Your task to perform on an android device: change the upload size in google photos Image 0: 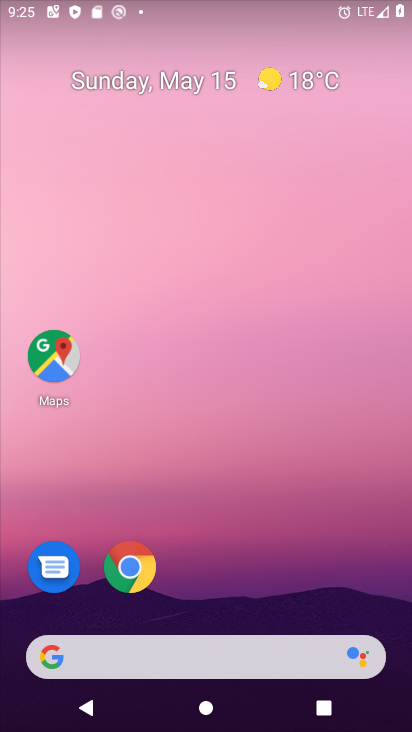
Step 0: drag from (249, 712) to (38, 65)
Your task to perform on an android device: change the upload size in google photos Image 1: 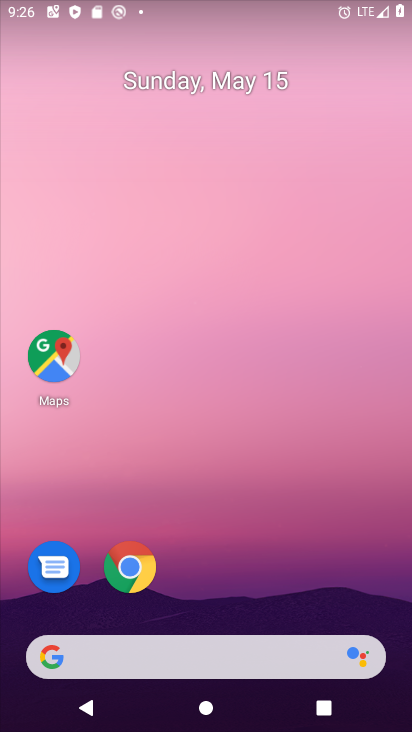
Step 1: drag from (259, 717) to (352, 10)
Your task to perform on an android device: change the upload size in google photos Image 2: 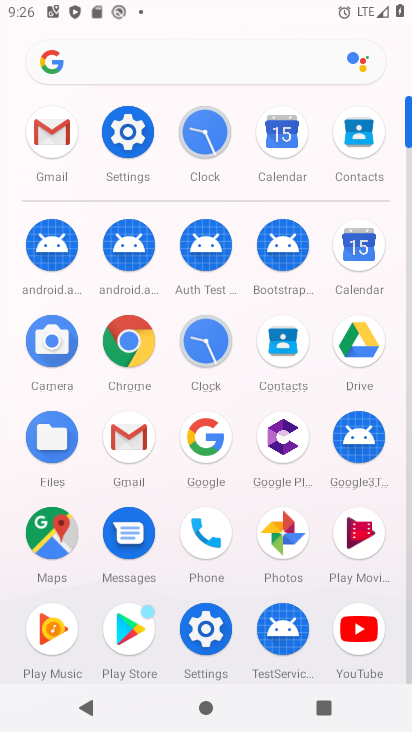
Step 2: click (267, 540)
Your task to perform on an android device: change the upload size in google photos Image 3: 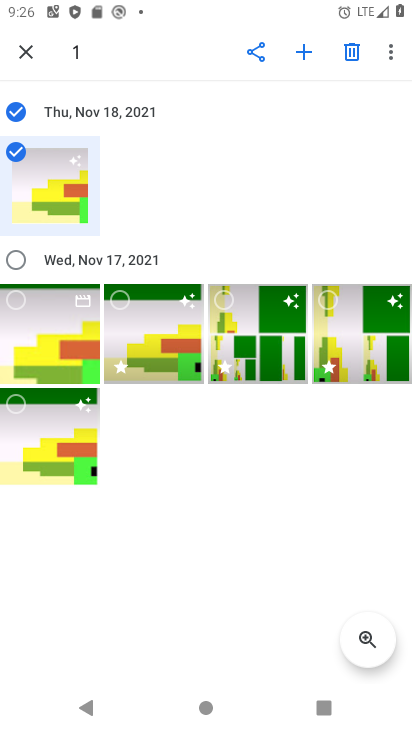
Step 3: click (31, 56)
Your task to perform on an android device: change the upload size in google photos Image 4: 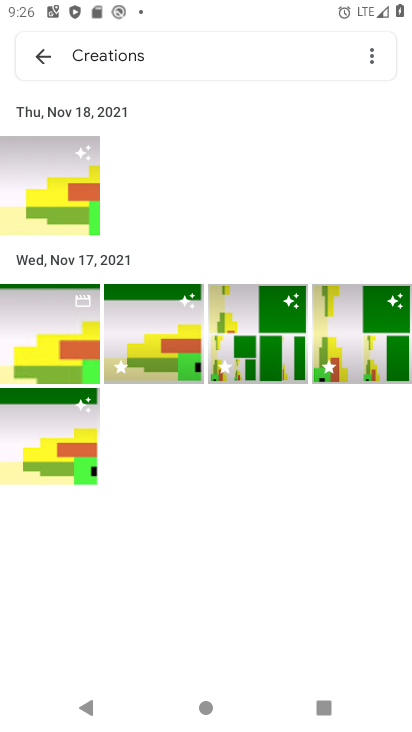
Step 4: click (31, 56)
Your task to perform on an android device: change the upload size in google photos Image 5: 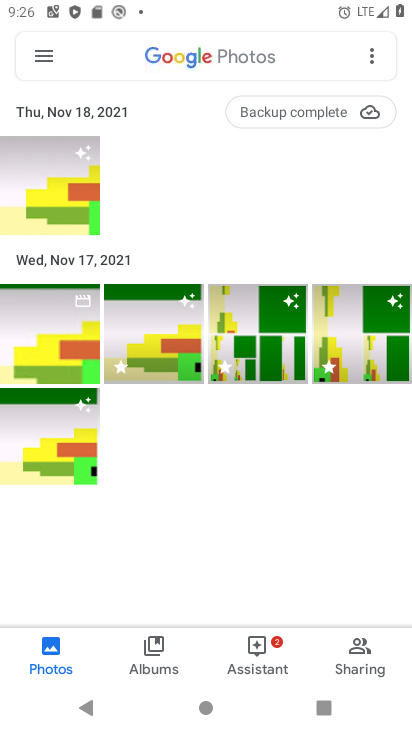
Step 5: click (39, 54)
Your task to perform on an android device: change the upload size in google photos Image 6: 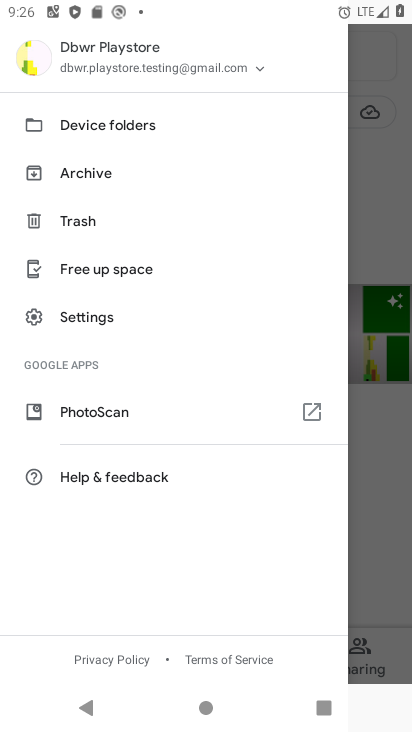
Step 6: click (102, 319)
Your task to perform on an android device: change the upload size in google photos Image 7: 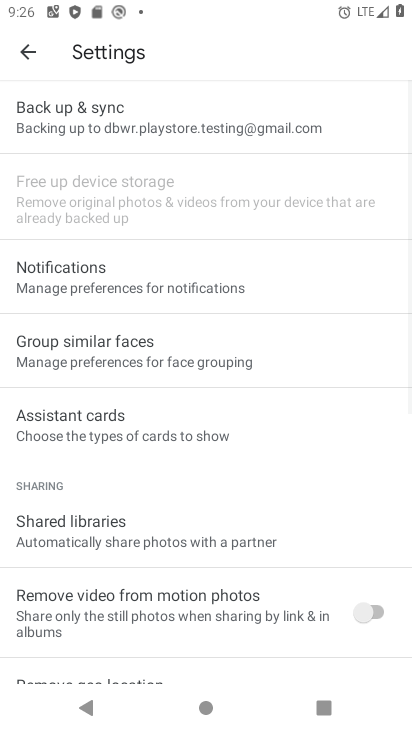
Step 7: click (233, 123)
Your task to perform on an android device: change the upload size in google photos Image 8: 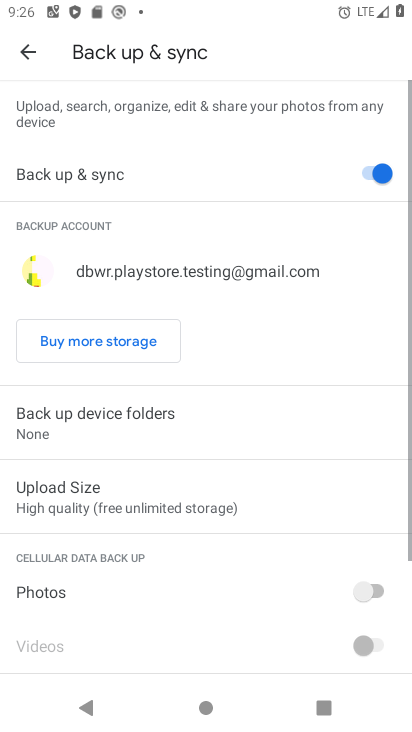
Step 8: click (170, 502)
Your task to perform on an android device: change the upload size in google photos Image 9: 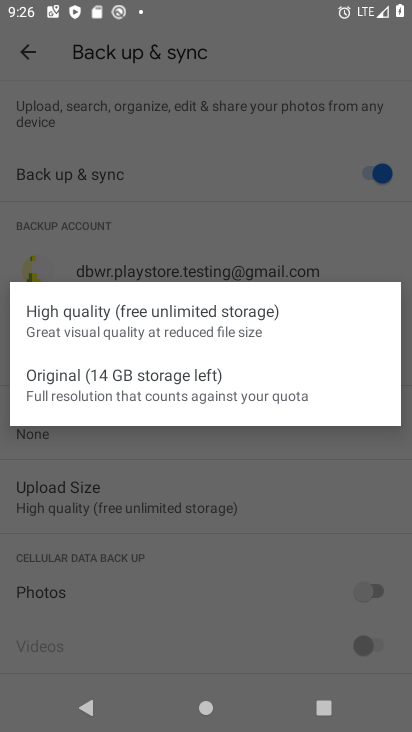
Step 9: click (163, 393)
Your task to perform on an android device: change the upload size in google photos Image 10: 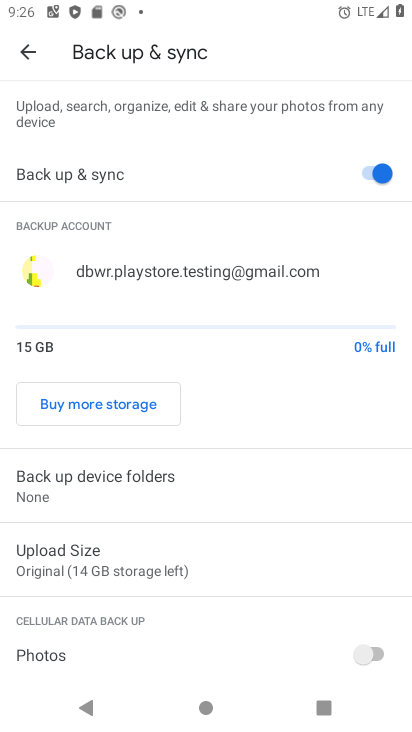
Step 10: task complete